Your task to perform on an android device: find photos in the google photos app Image 0: 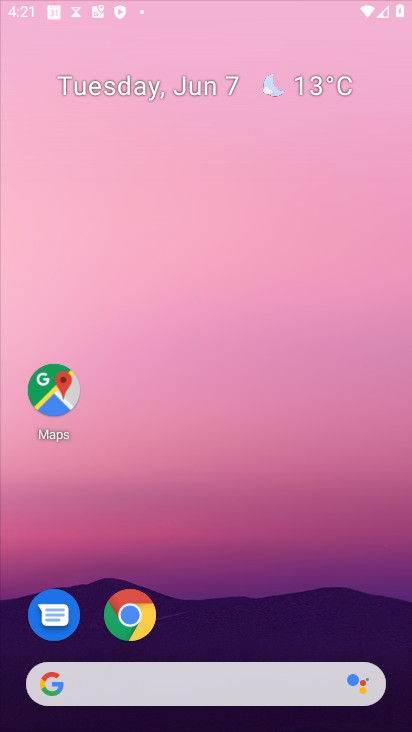
Step 0: press back button
Your task to perform on an android device: find photos in the google photos app Image 1: 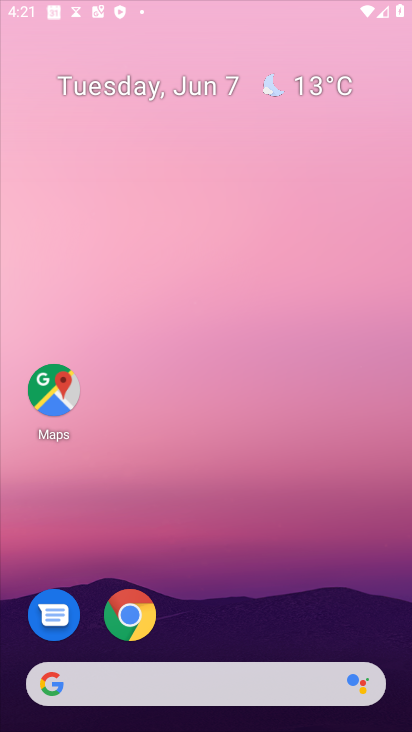
Step 1: click (210, 262)
Your task to perform on an android device: find photos in the google photos app Image 2: 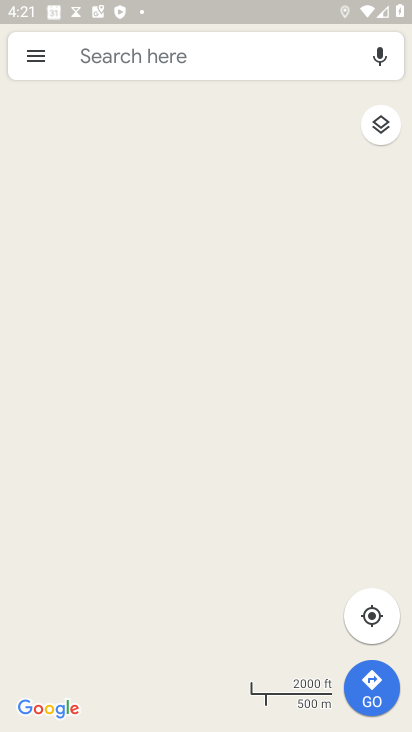
Step 2: drag from (218, 628) to (196, 305)
Your task to perform on an android device: find photos in the google photos app Image 3: 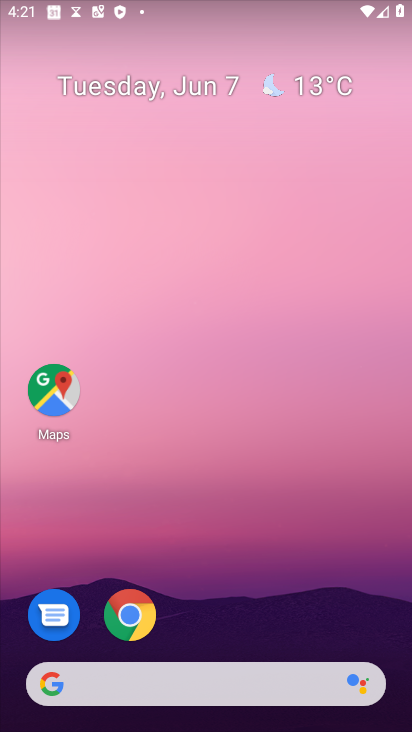
Step 3: drag from (286, 482) to (283, 318)
Your task to perform on an android device: find photos in the google photos app Image 4: 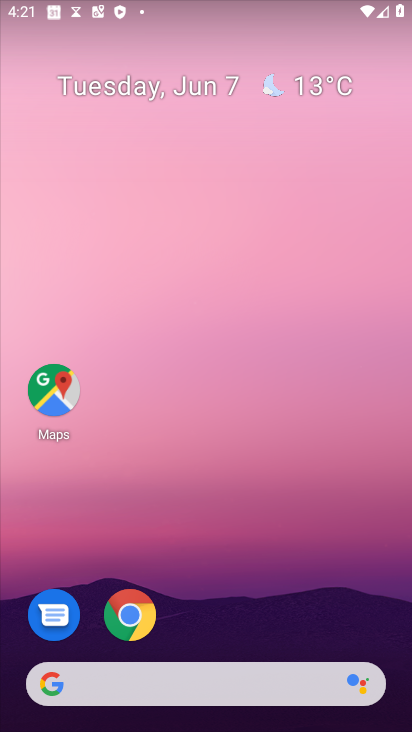
Step 4: drag from (252, 702) to (262, 409)
Your task to perform on an android device: find photos in the google photos app Image 5: 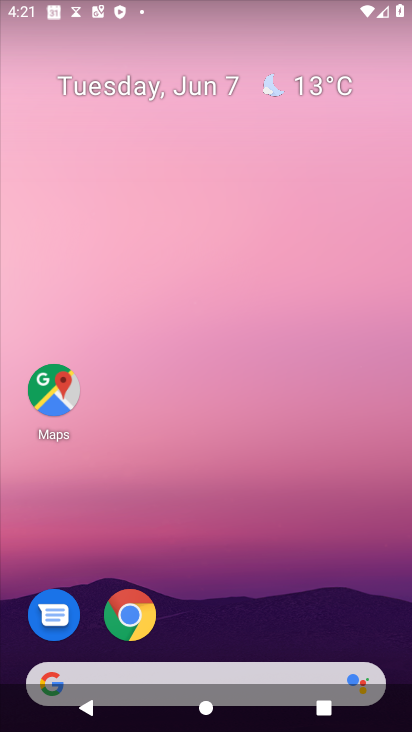
Step 5: drag from (249, 456) to (170, 17)
Your task to perform on an android device: find photos in the google photos app Image 6: 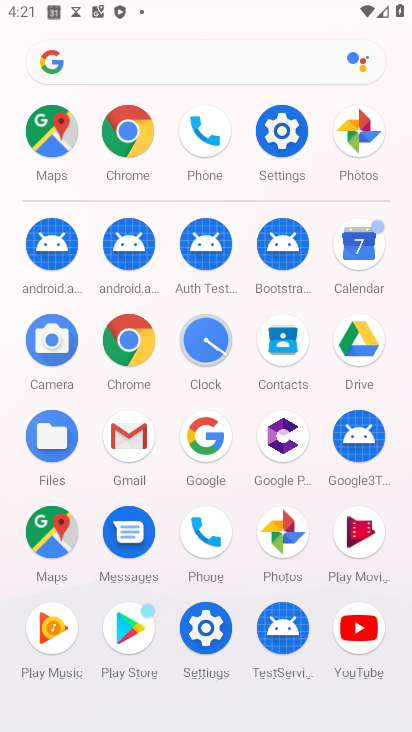
Step 6: drag from (232, 572) to (192, 106)
Your task to perform on an android device: find photos in the google photos app Image 7: 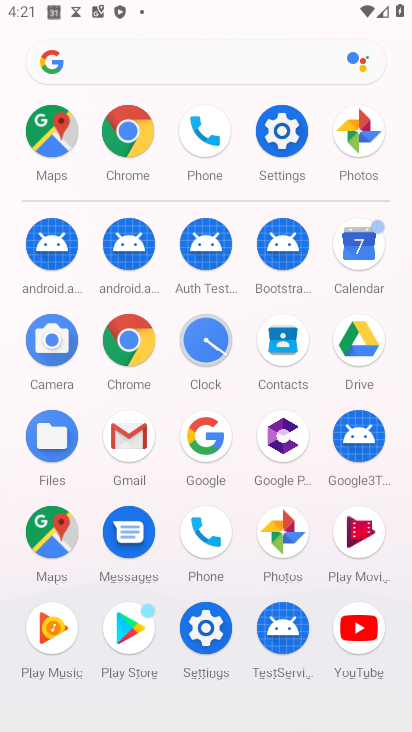
Step 7: click (286, 542)
Your task to perform on an android device: find photos in the google photos app Image 8: 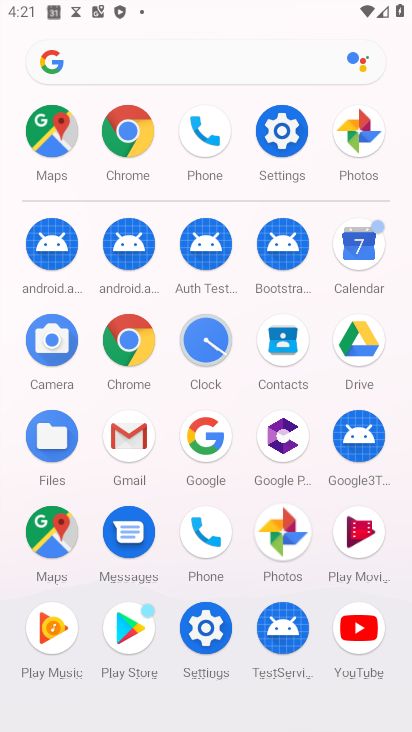
Step 8: click (284, 537)
Your task to perform on an android device: find photos in the google photos app Image 9: 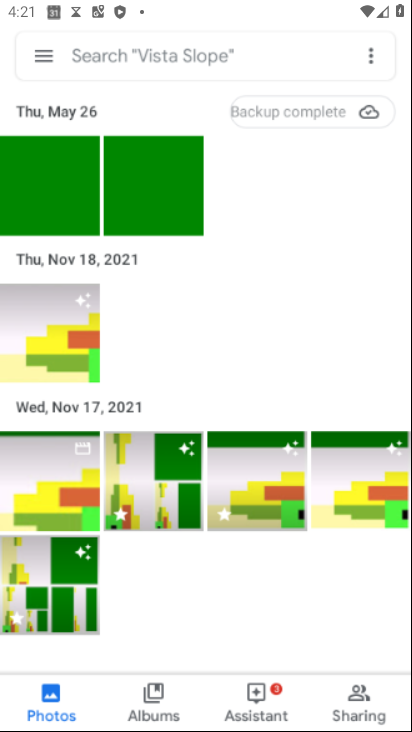
Step 9: click (279, 522)
Your task to perform on an android device: find photos in the google photos app Image 10: 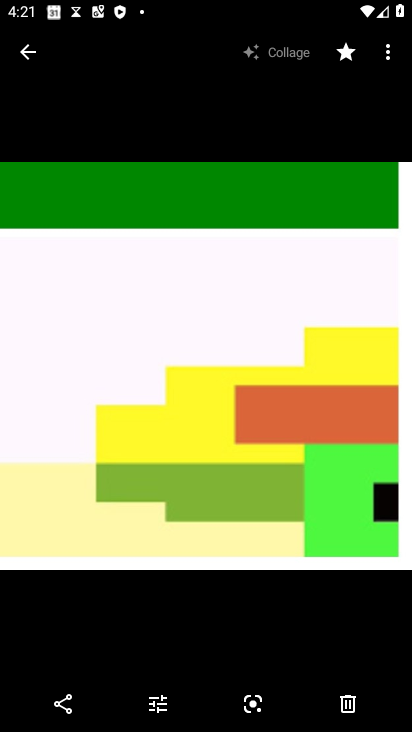
Step 10: click (14, 49)
Your task to perform on an android device: find photos in the google photos app Image 11: 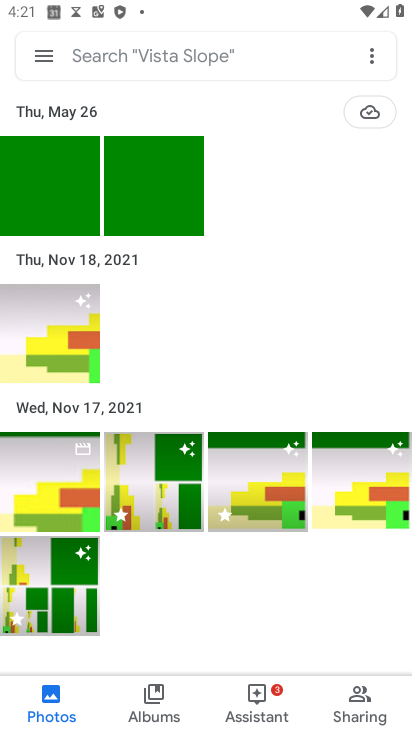
Step 11: task complete